Your task to perform on an android device: Open Google Maps Image 0: 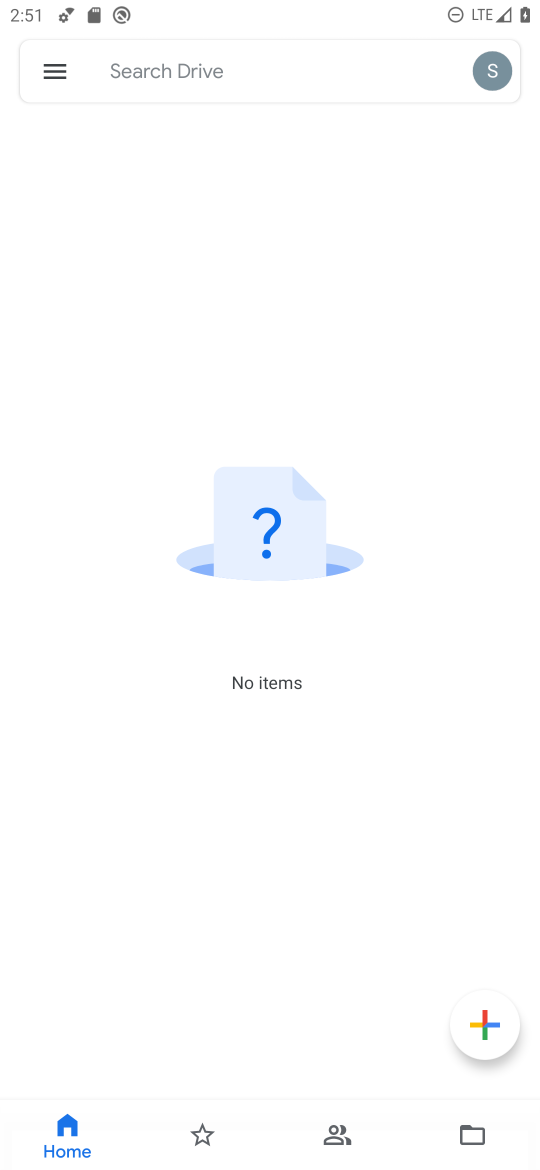
Step 0: press home button
Your task to perform on an android device: Open Google Maps Image 1: 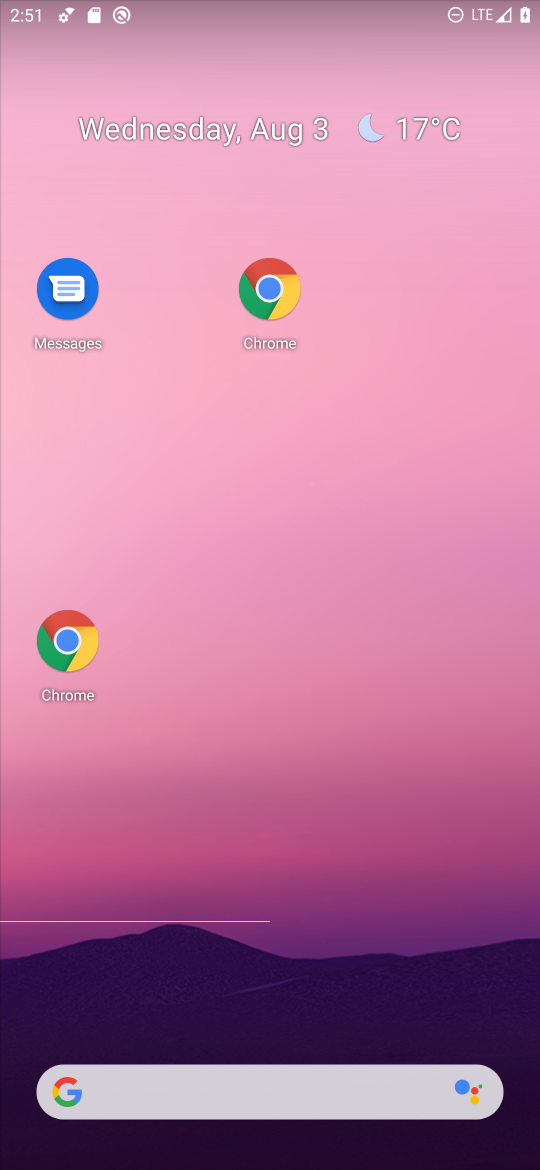
Step 1: drag from (335, 952) to (336, 76)
Your task to perform on an android device: Open Google Maps Image 2: 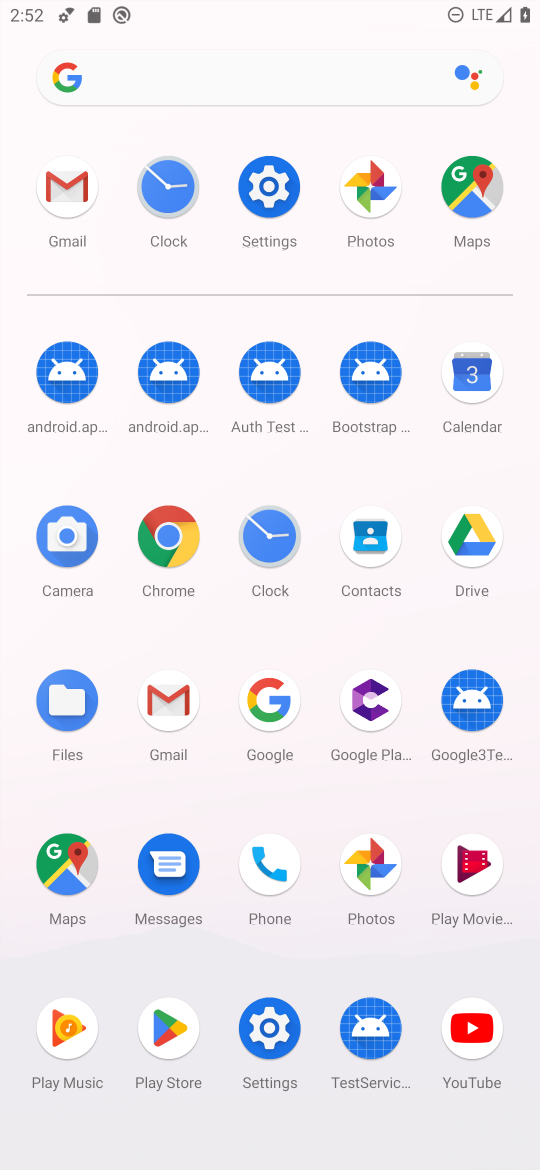
Step 2: click (76, 880)
Your task to perform on an android device: Open Google Maps Image 3: 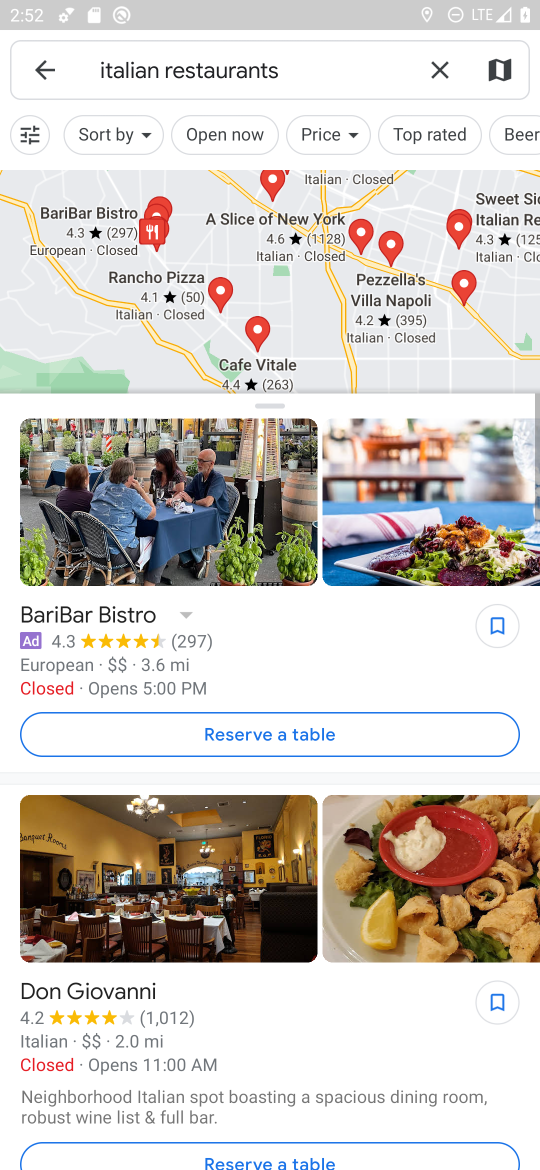
Step 3: task complete